Your task to perform on an android device: Do I have any events this weekend? Image 0: 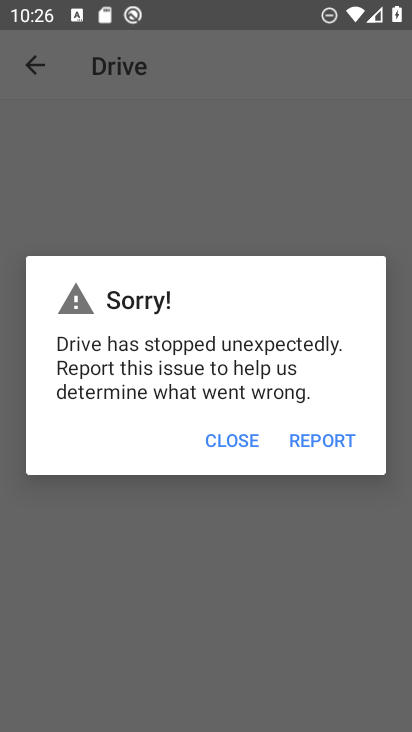
Step 0: press home button
Your task to perform on an android device: Do I have any events this weekend? Image 1: 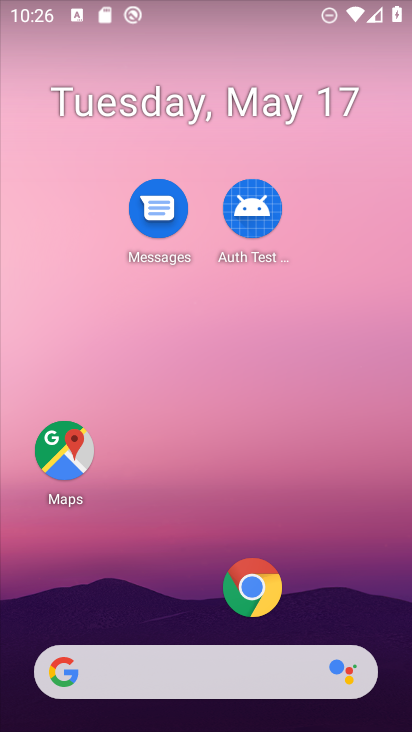
Step 1: drag from (237, 525) to (155, 135)
Your task to perform on an android device: Do I have any events this weekend? Image 2: 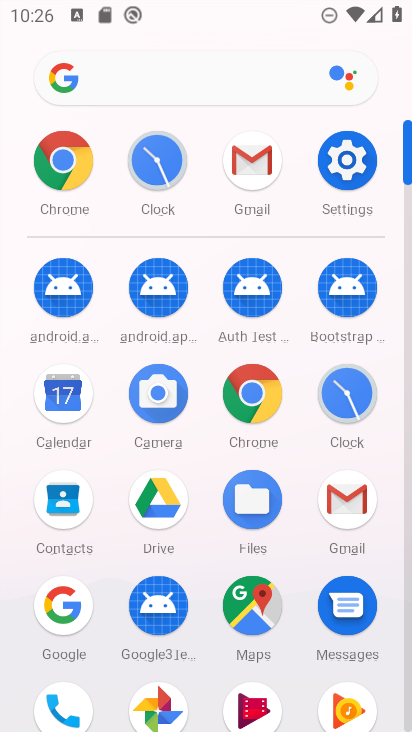
Step 2: click (72, 397)
Your task to perform on an android device: Do I have any events this weekend? Image 3: 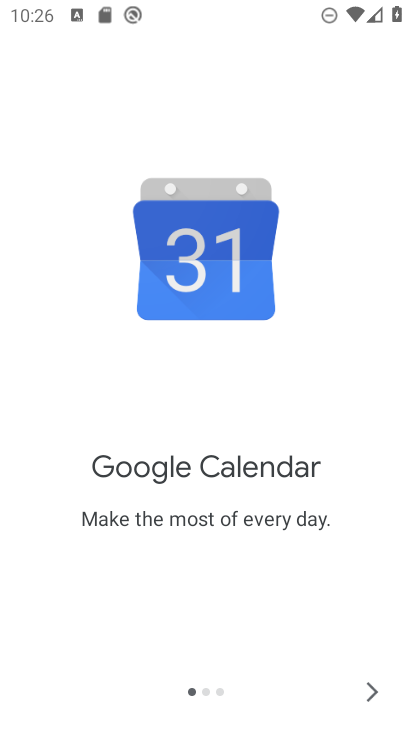
Step 3: click (374, 697)
Your task to perform on an android device: Do I have any events this weekend? Image 4: 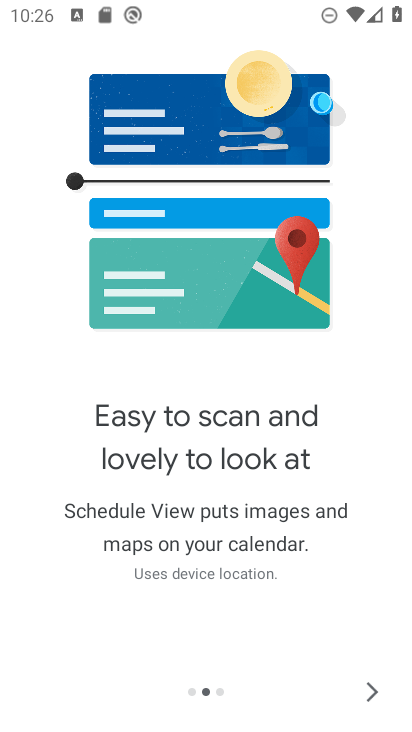
Step 4: click (374, 697)
Your task to perform on an android device: Do I have any events this weekend? Image 5: 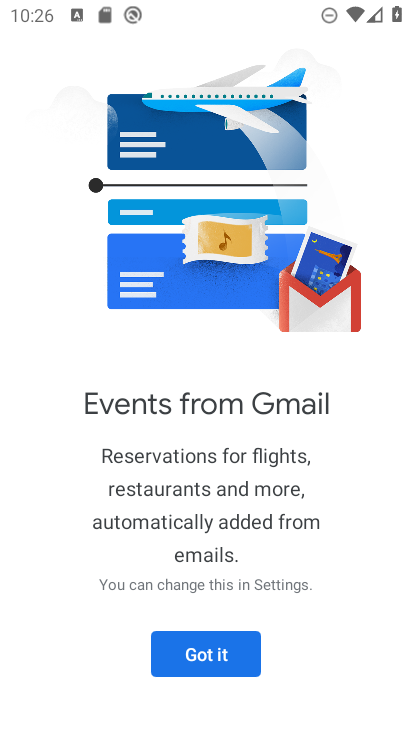
Step 5: click (251, 652)
Your task to perform on an android device: Do I have any events this weekend? Image 6: 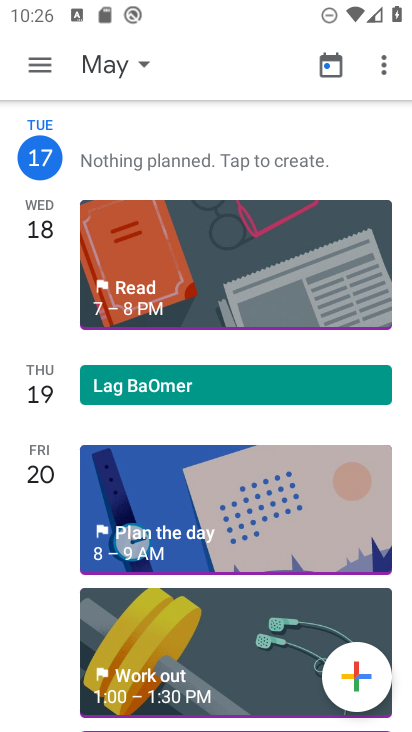
Step 6: click (146, 70)
Your task to perform on an android device: Do I have any events this weekend? Image 7: 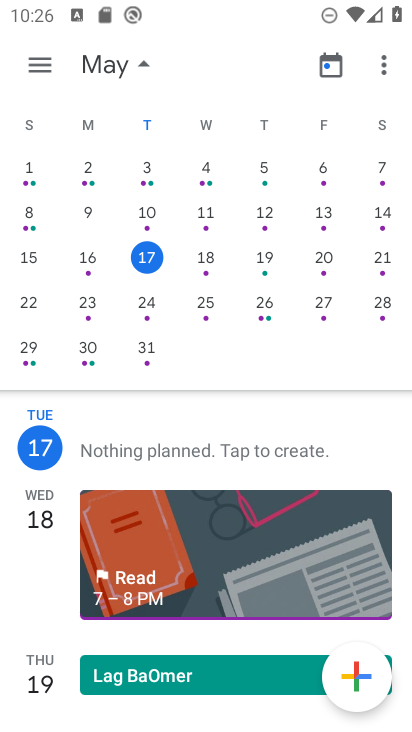
Step 7: click (135, 67)
Your task to perform on an android device: Do I have any events this weekend? Image 8: 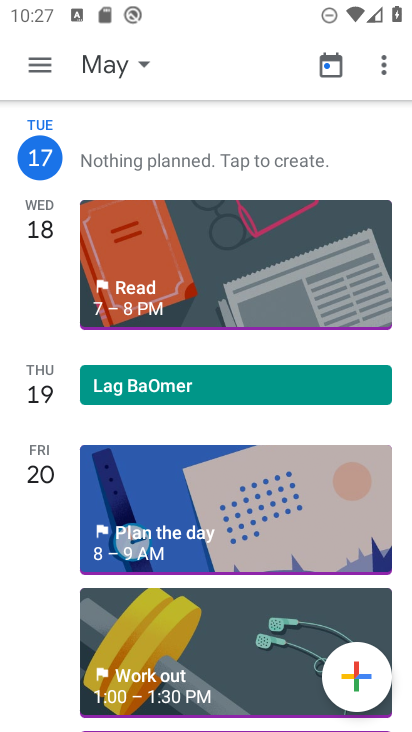
Step 8: task complete